Your task to perform on an android device: Add razer blade to the cart on walmart Image 0: 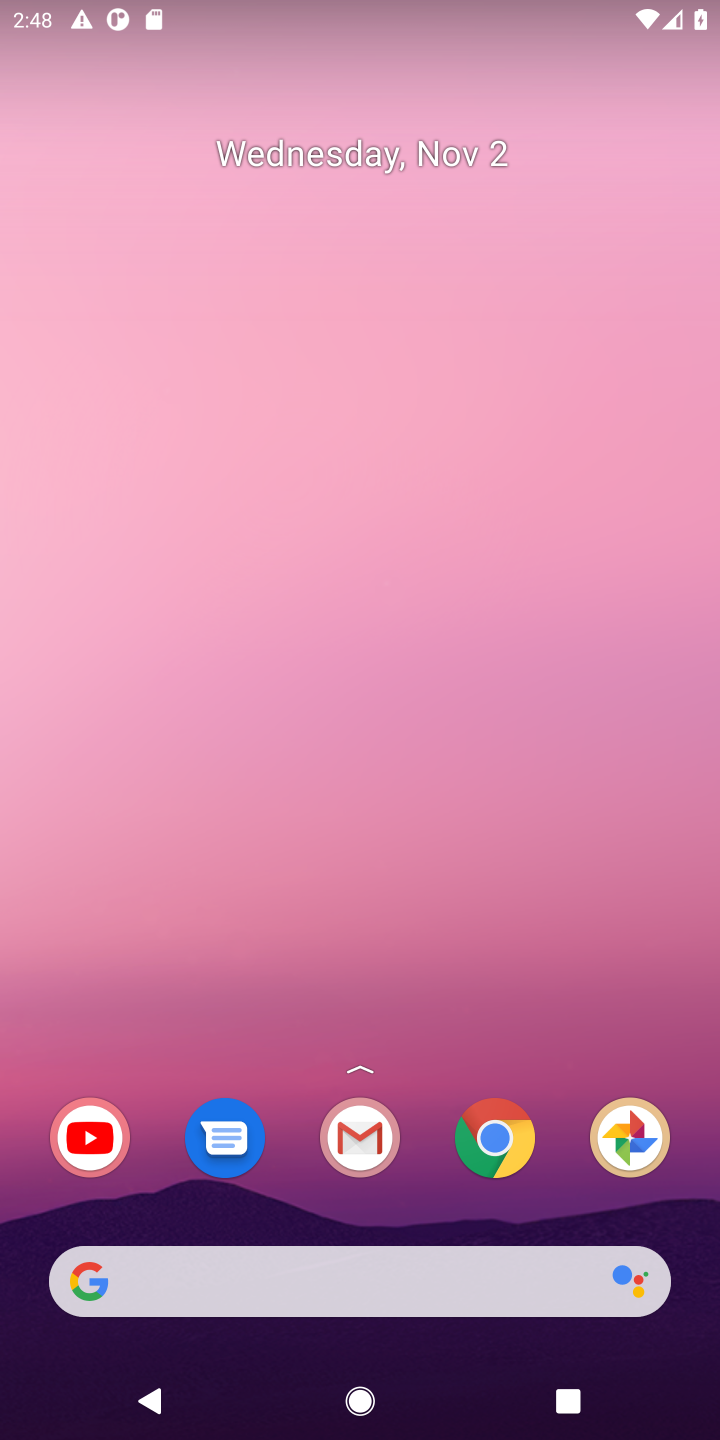
Step 0: press home button
Your task to perform on an android device: Add razer blade to the cart on walmart Image 1: 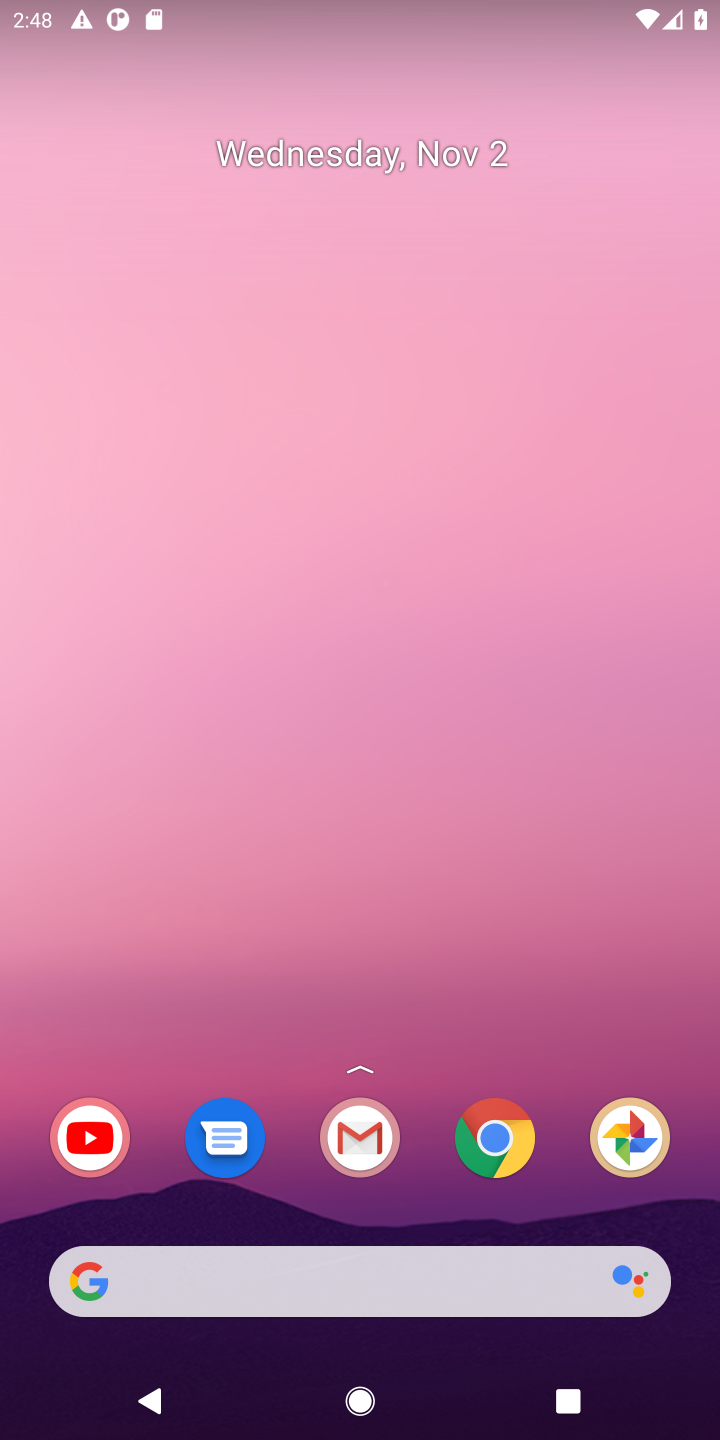
Step 1: click (141, 1273)
Your task to perform on an android device: Add razer blade to the cart on walmart Image 2: 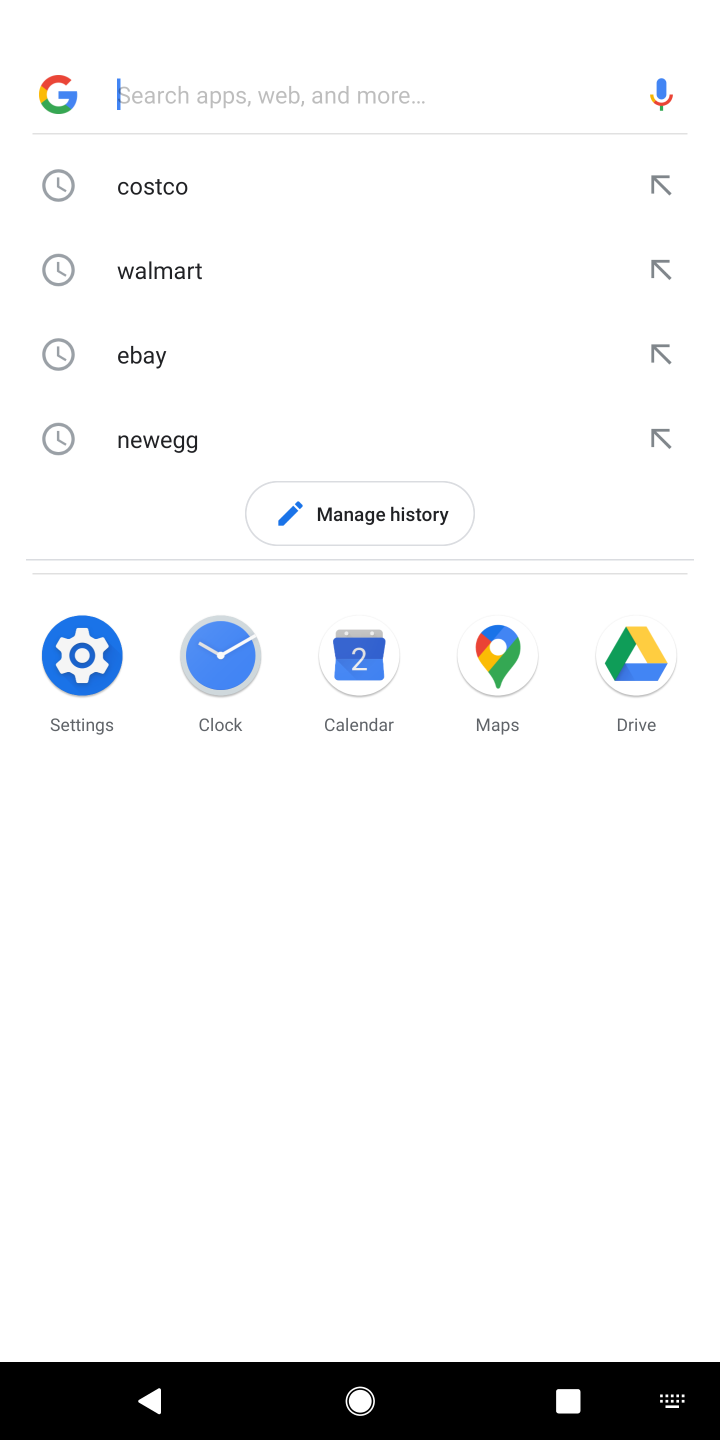
Step 2: type "walmart"
Your task to perform on an android device: Add razer blade to the cart on walmart Image 3: 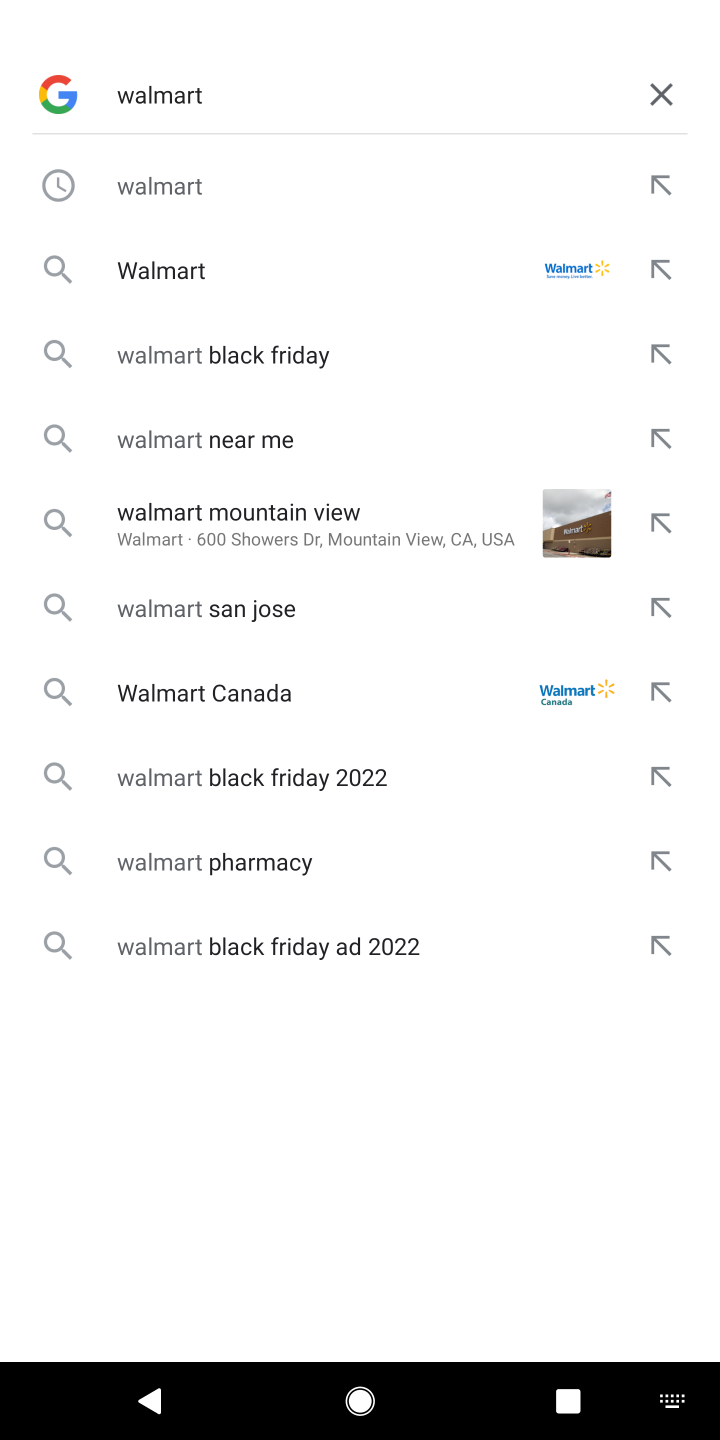
Step 3: press enter
Your task to perform on an android device: Add razer blade to the cart on walmart Image 4: 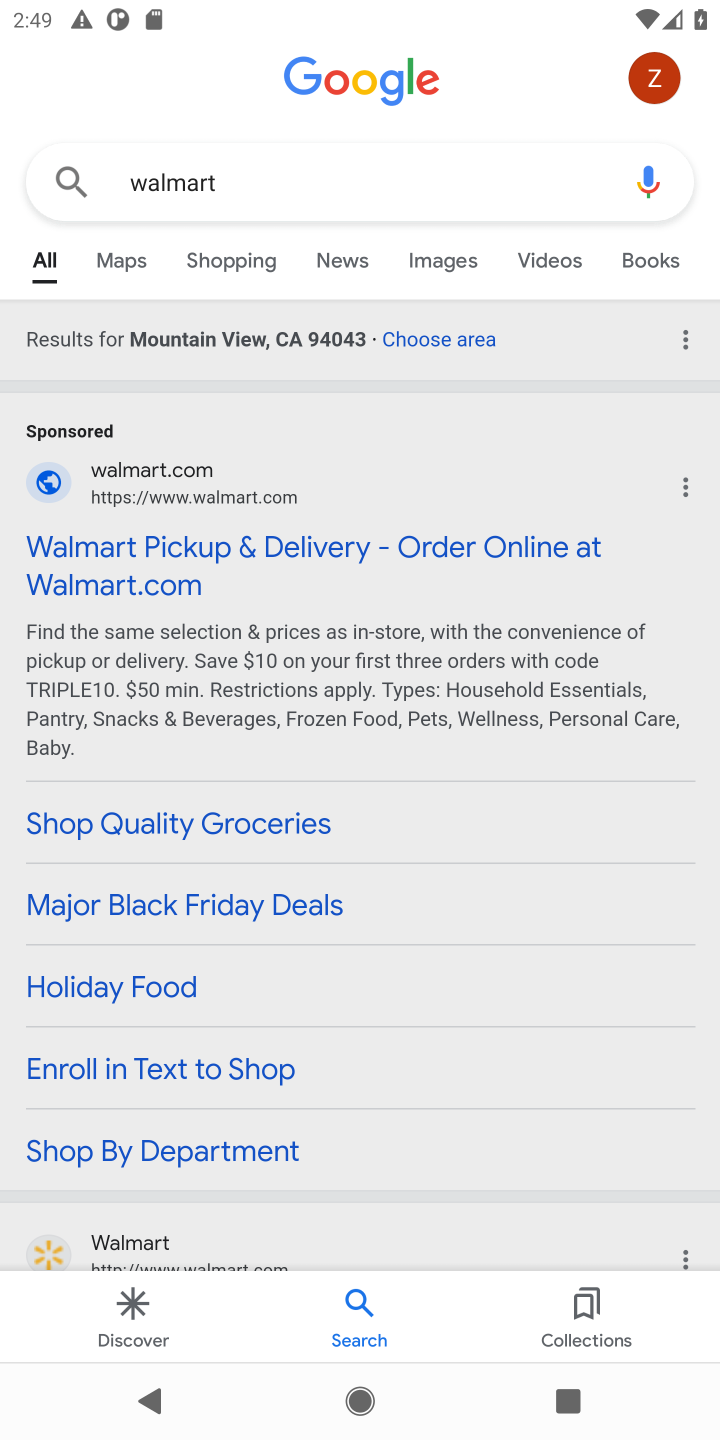
Step 4: click (176, 552)
Your task to perform on an android device: Add razer blade to the cart on walmart Image 5: 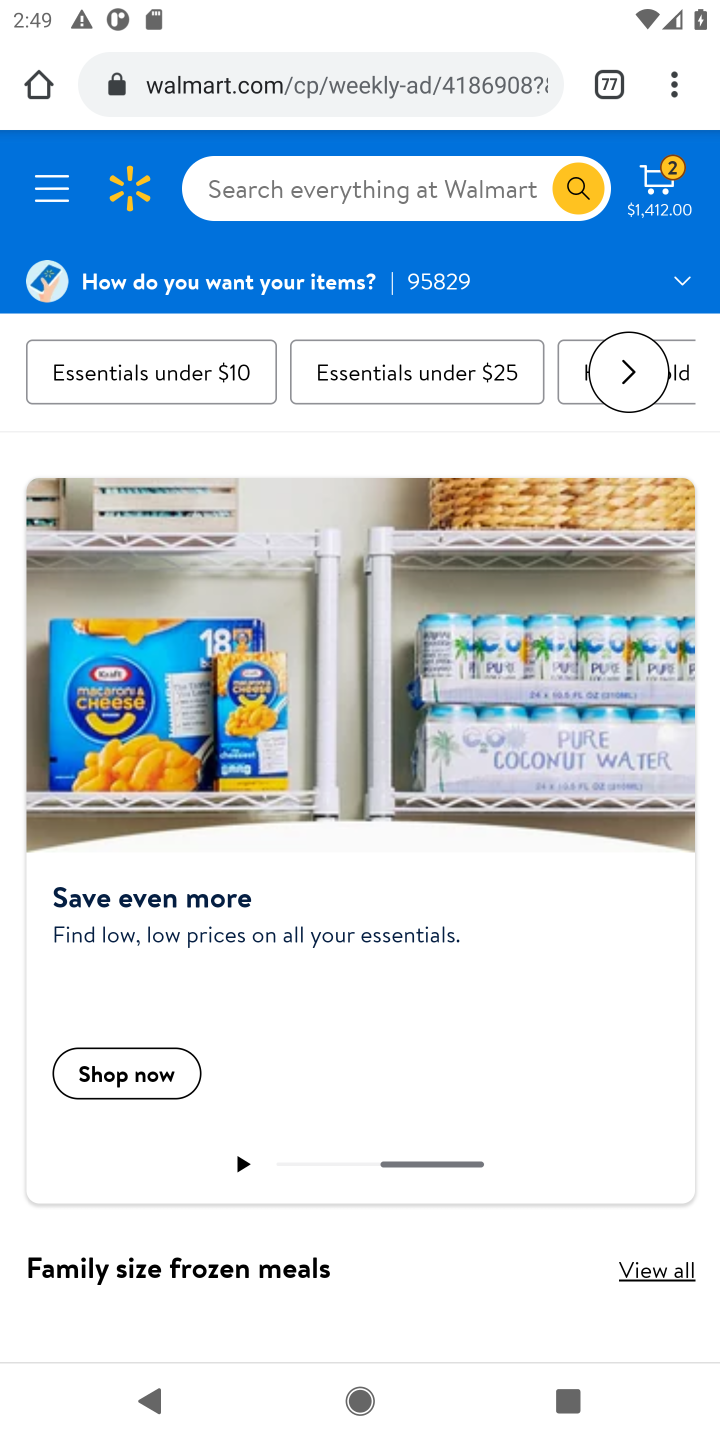
Step 5: click (323, 192)
Your task to perform on an android device: Add razer blade to the cart on walmart Image 6: 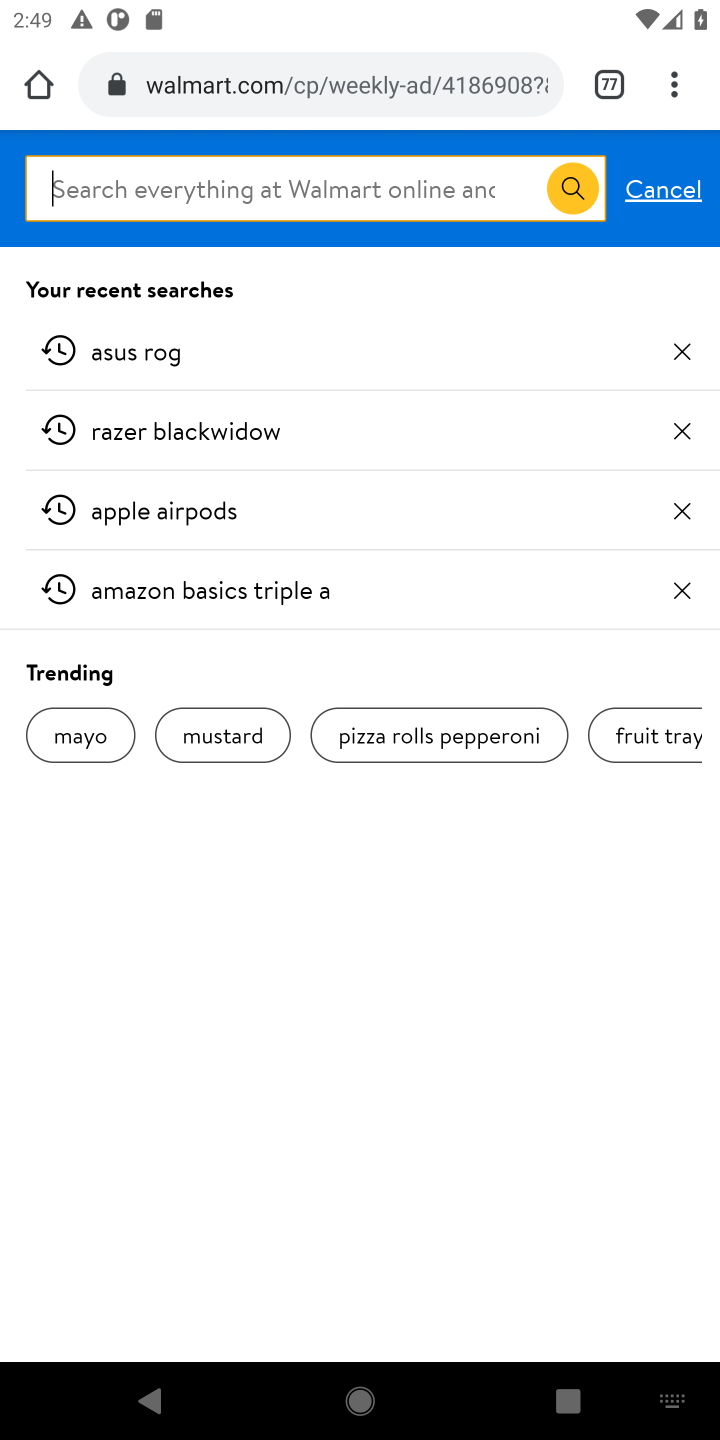
Step 6: type "razer blade"
Your task to perform on an android device: Add razer blade to the cart on walmart Image 7: 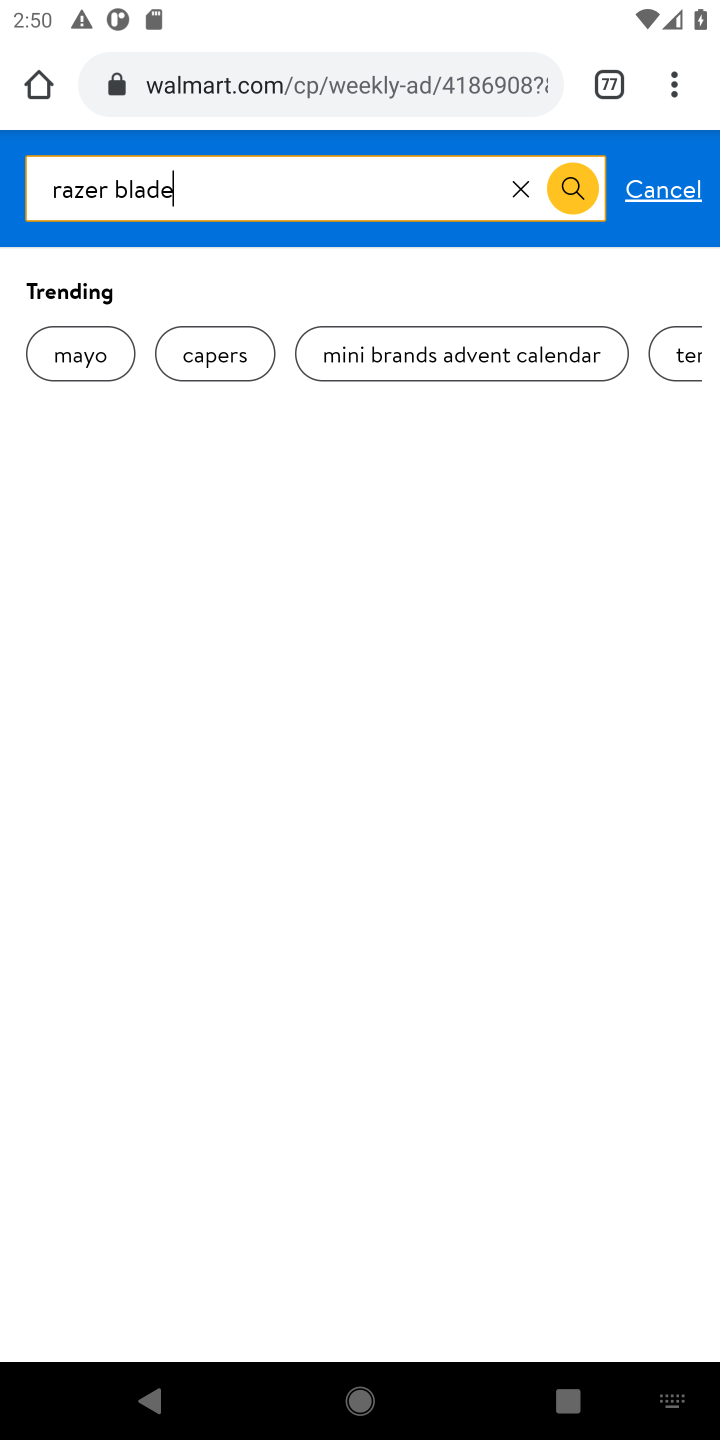
Step 7: press enter
Your task to perform on an android device: Add razer blade to the cart on walmart Image 8: 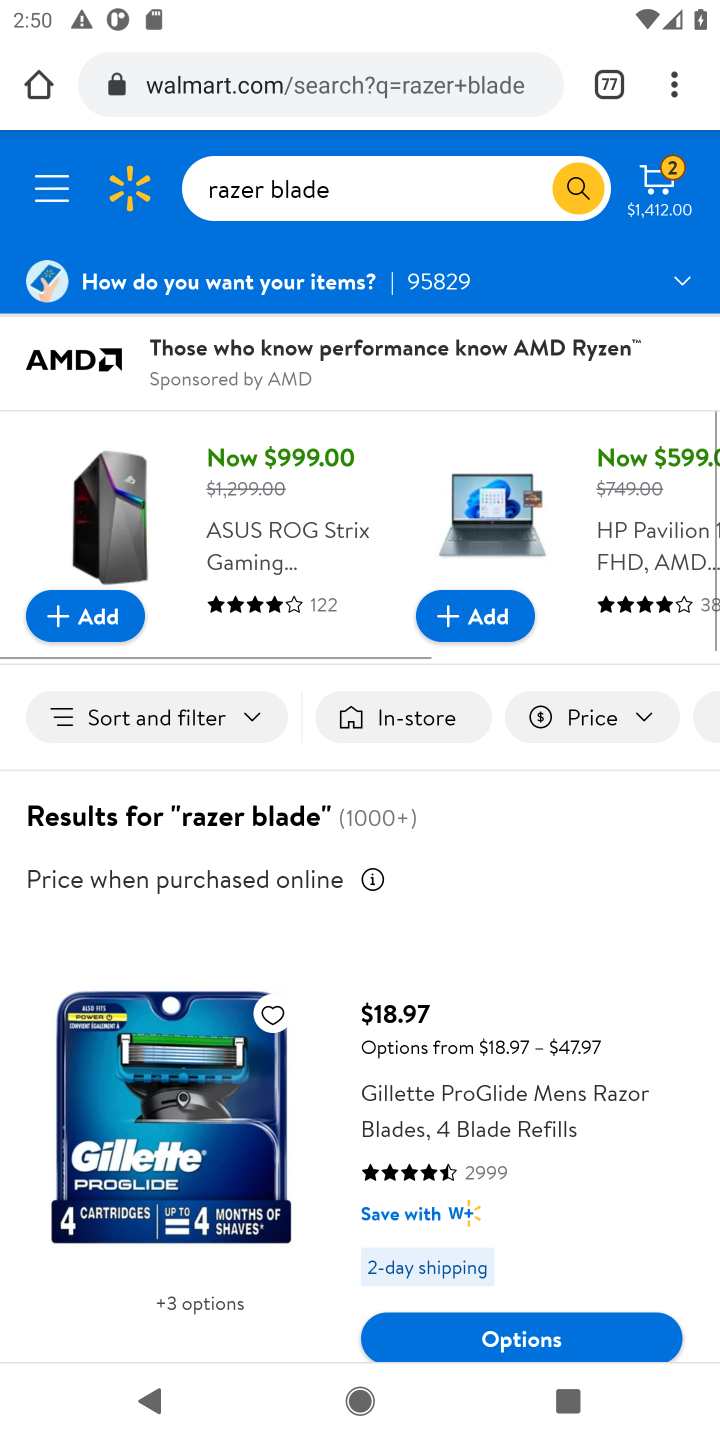
Step 8: drag from (515, 1142) to (515, 747)
Your task to perform on an android device: Add razer blade to the cart on walmart Image 9: 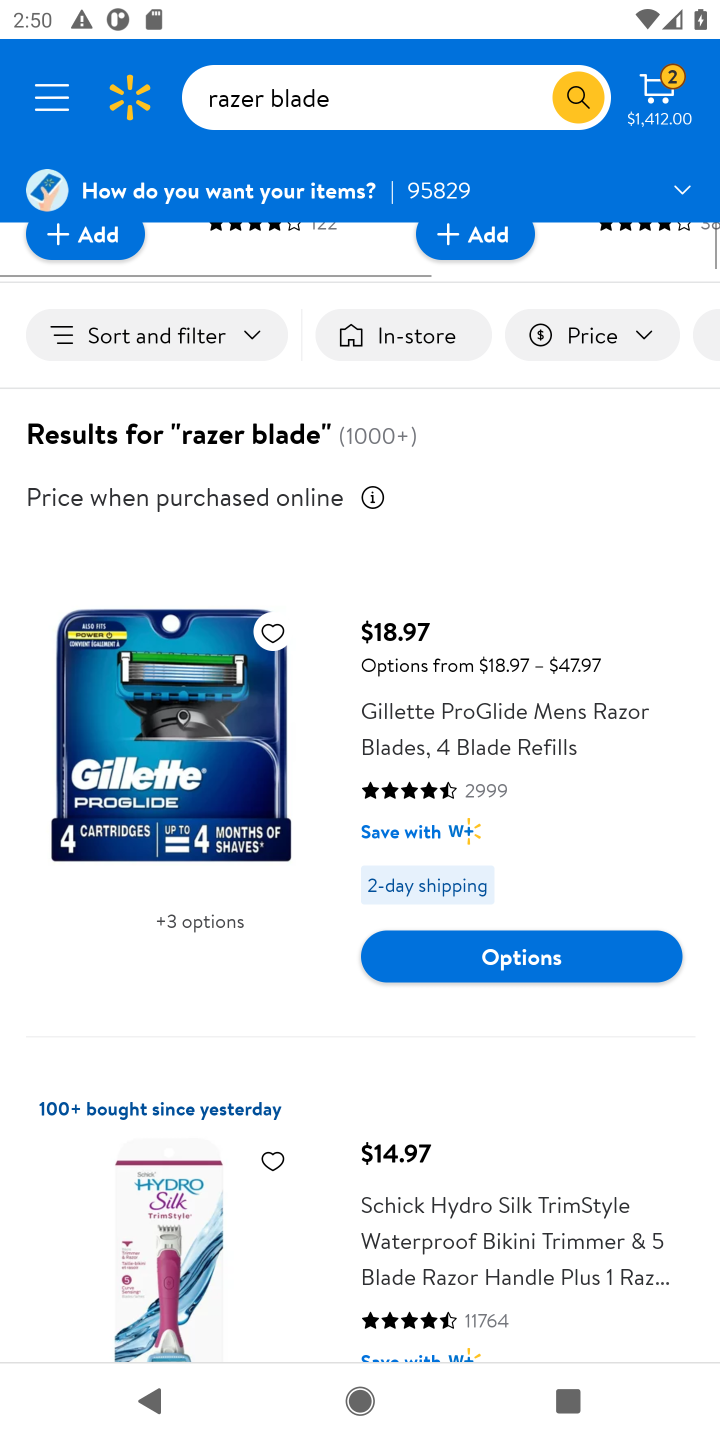
Step 9: click (463, 726)
Your task to perform on an android device: Add razer blade to the cart on walmart Image 10: 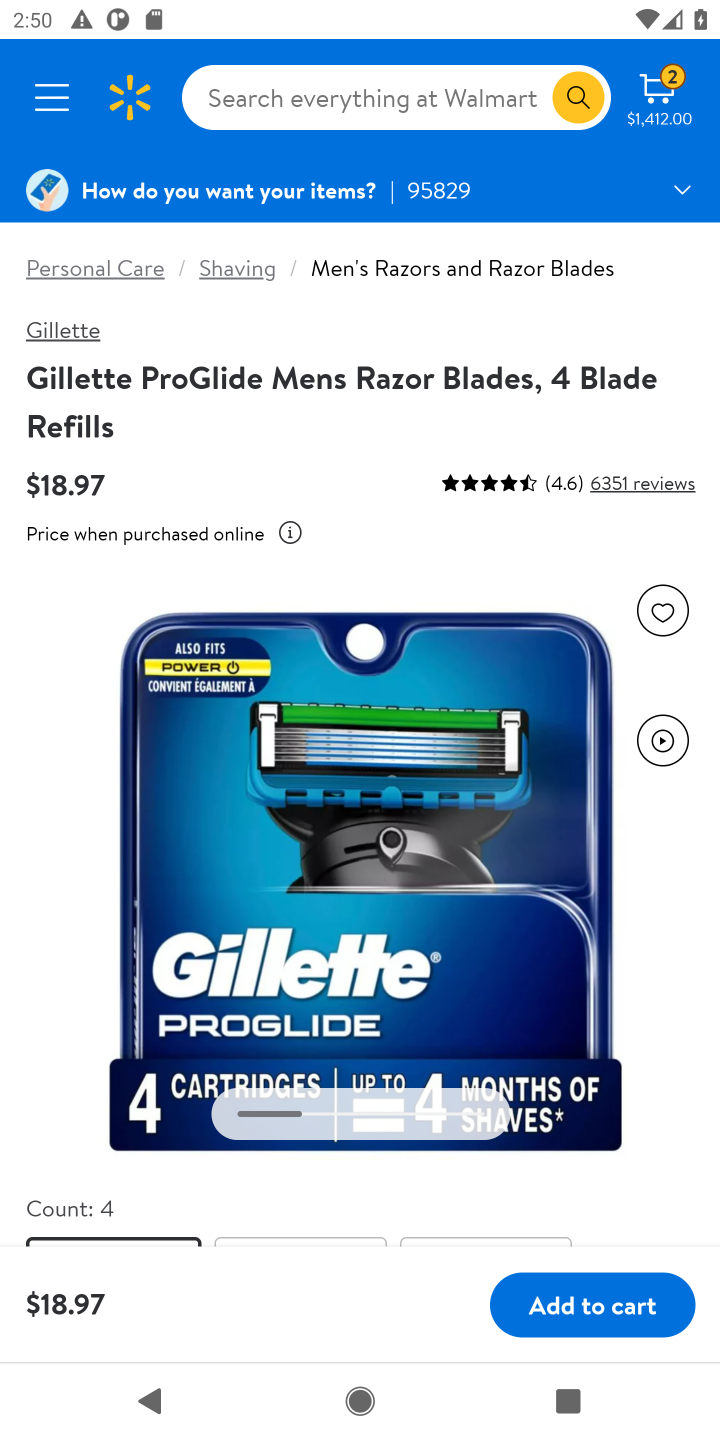
Step 10: click (561, 1305)
Your task to perform on an android device: Add razer blade to the cart on walmart Image 11: 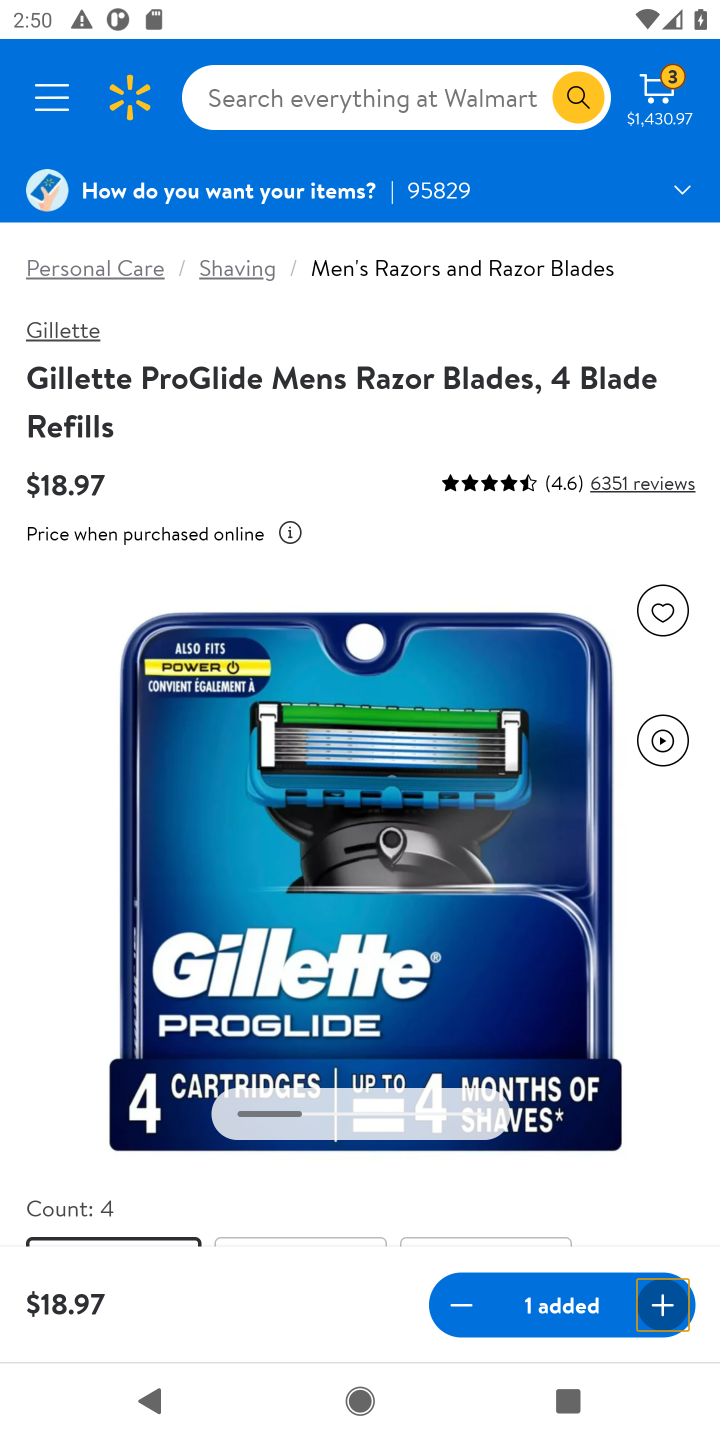
Step 11: task complete